Your task to perform on an android device: How big is the universe? Image 0: 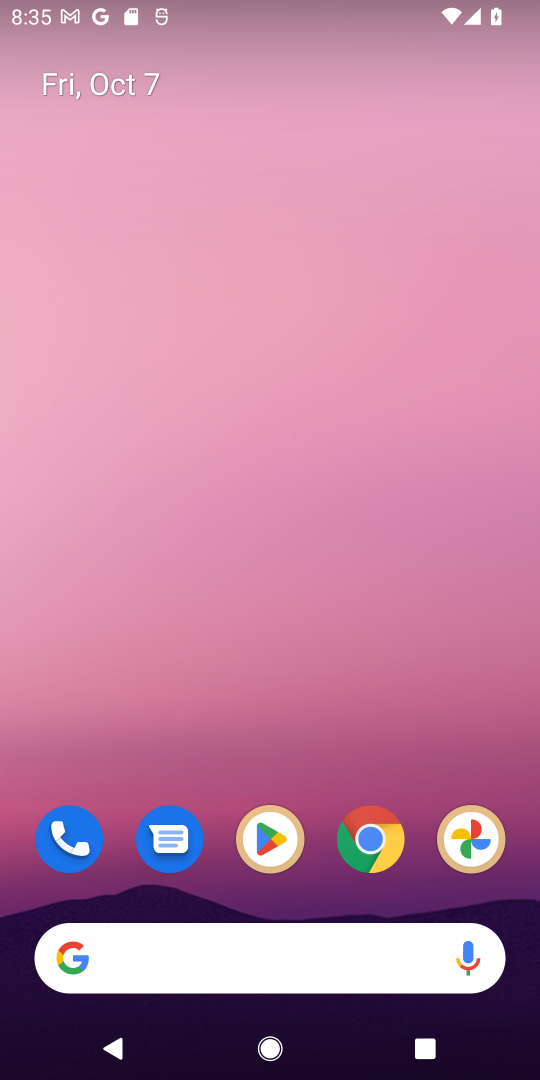
Step 0: click (376, 839)
Your task to perform on an android device: How big is the universe? Image 1: 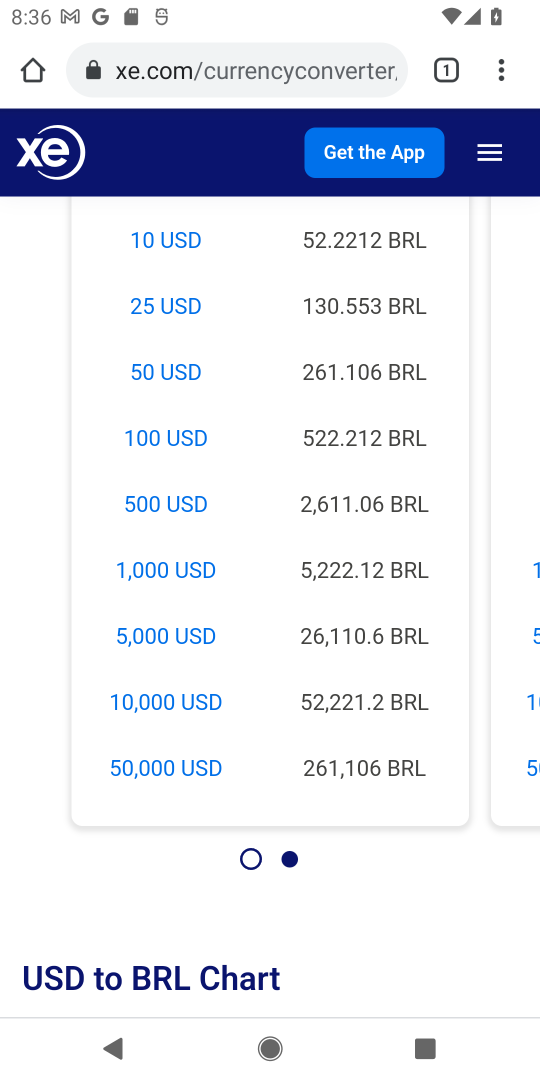
Step 1: press home button
Your task to perform on an android device: How big is the universe? Image 2: 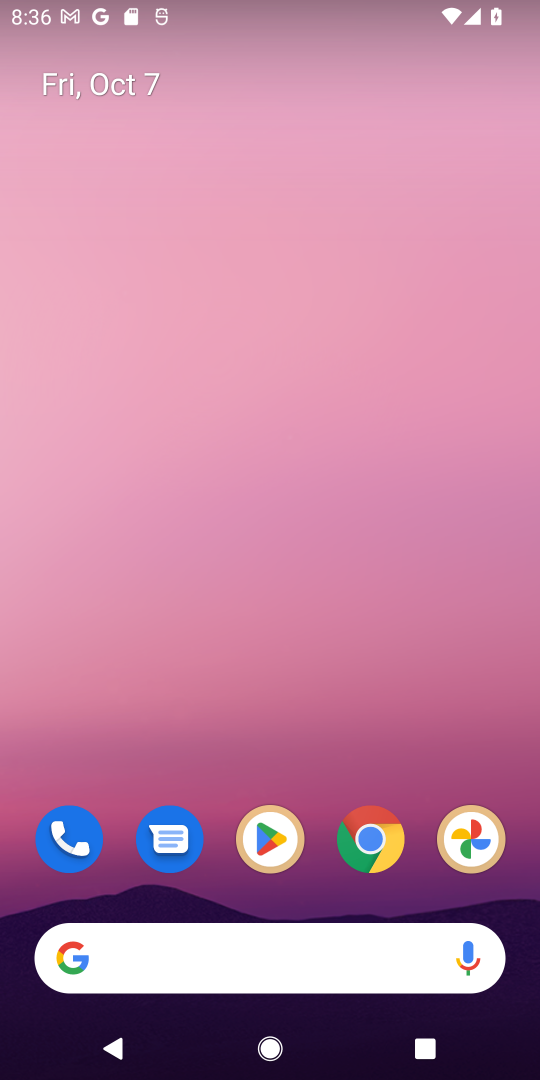
Step 2: click (355, 844)
Your task to perform on an android device: How big is the universe? Image 3: 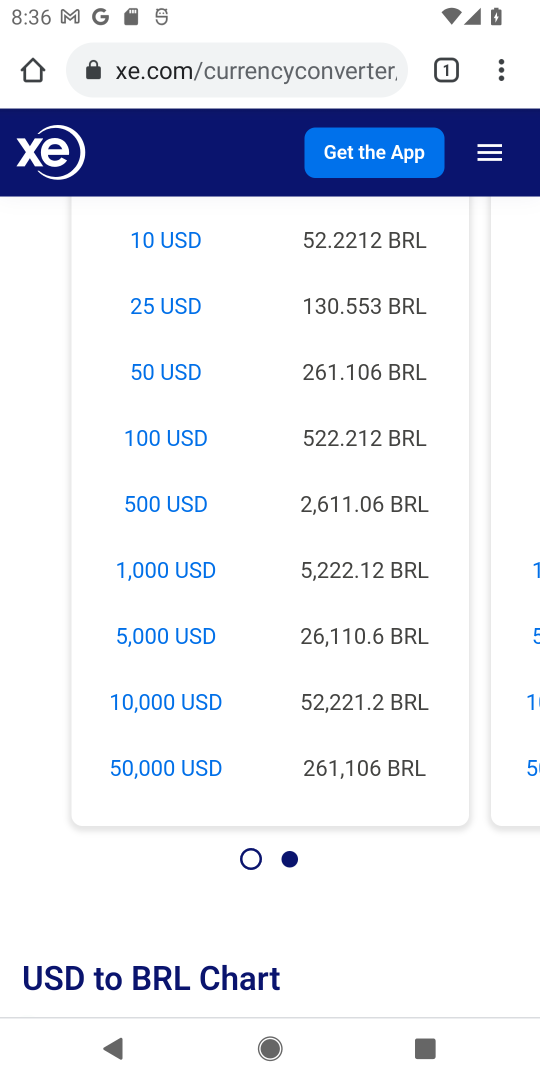
Step 3: click (214, 65)
Your task to perform on an android device: How big is the universe? Image 4: 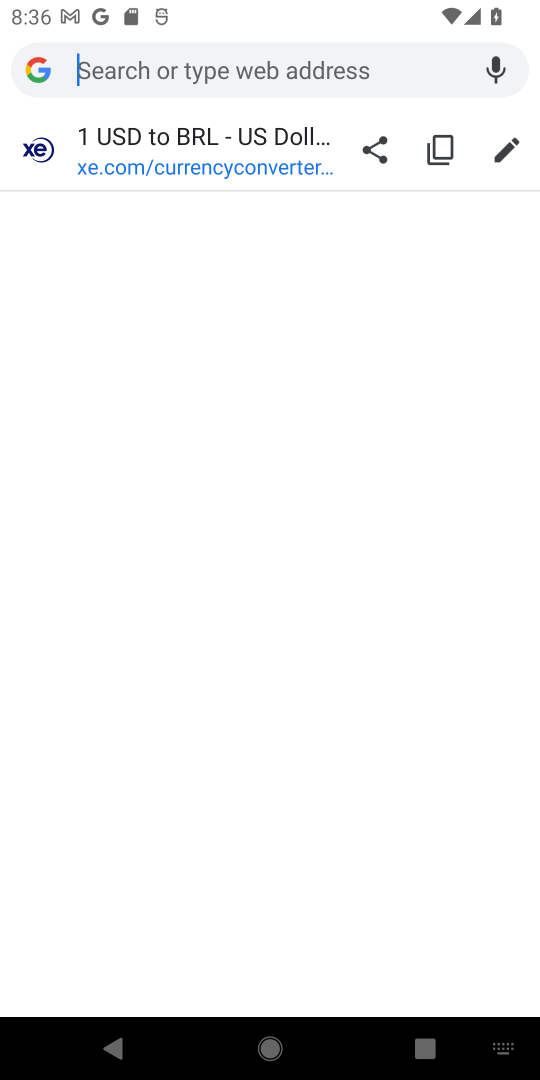
Step 4: type "how big is the universe"
Your task to perform on an android device: How big is the universe? Image 5: 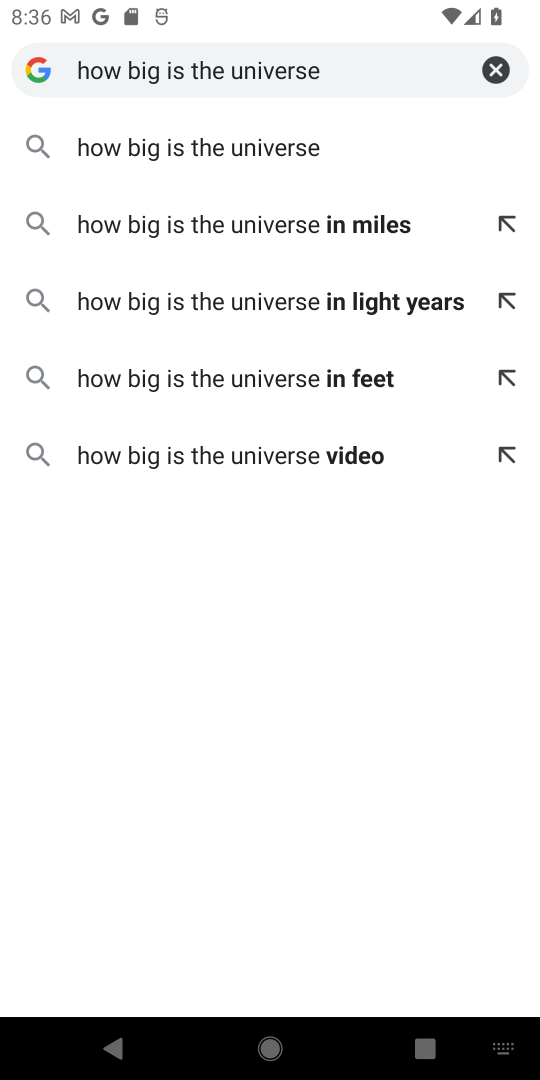
Step 5: click (286, 141)
Your task to perform on an android device: How big is the universe? Image 6: 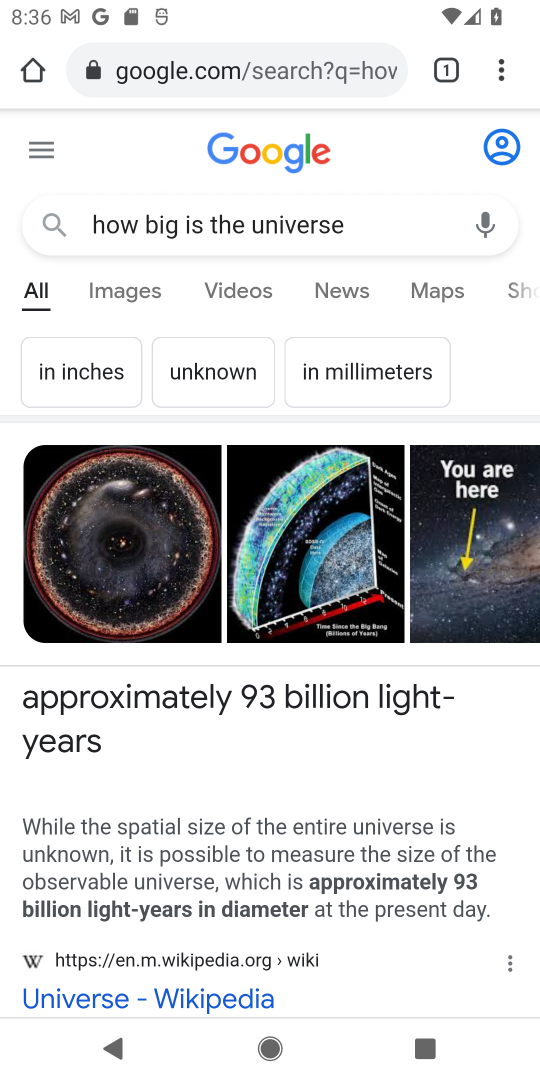
Step 6: task complete